Your task to perform on an android device: Open calendar and show me the second week of next month Image 0: 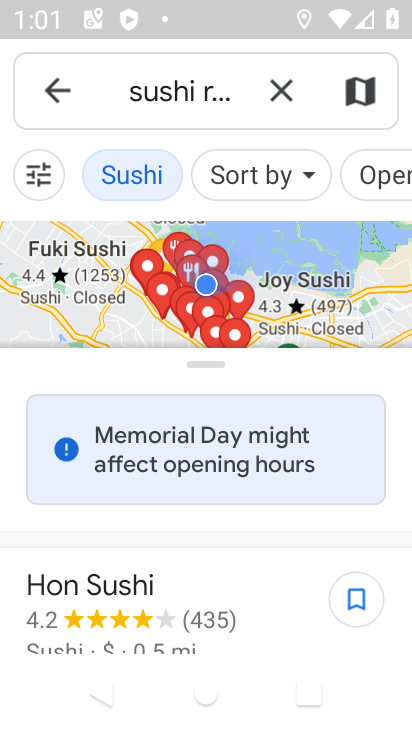
Step 0: press home button
Your task to perform on an android device: Open calendar and show me the second week of next month Image 1: 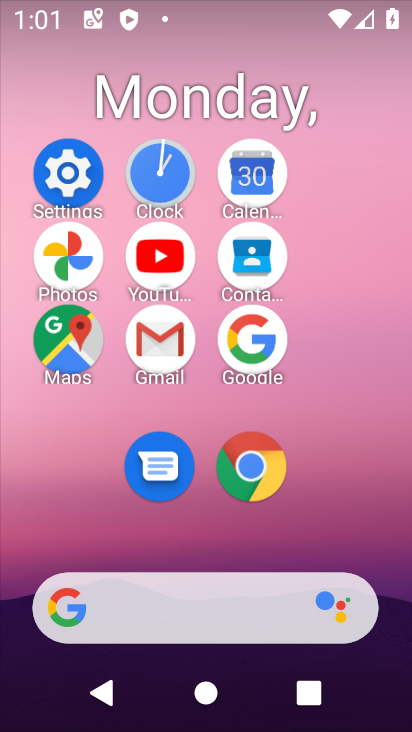
Step 1: click (237, 183)
Your task to perform on an android device: Open calendar and show me the second week of next month Image 2: 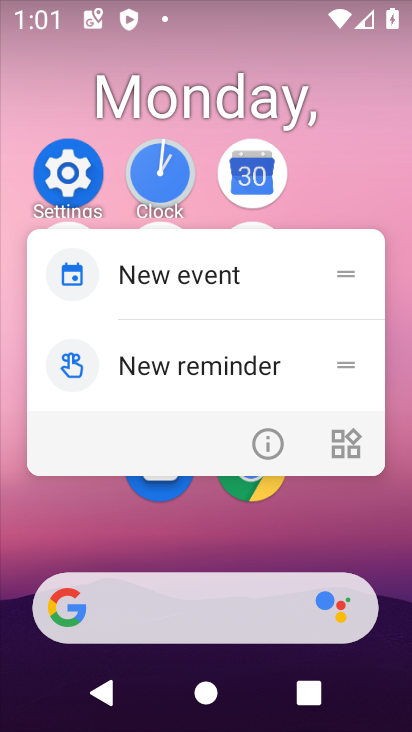
Step 2: click (237, 183)
Your task to perform on an android device: Open calendar and show me the second week of next month Image 3: 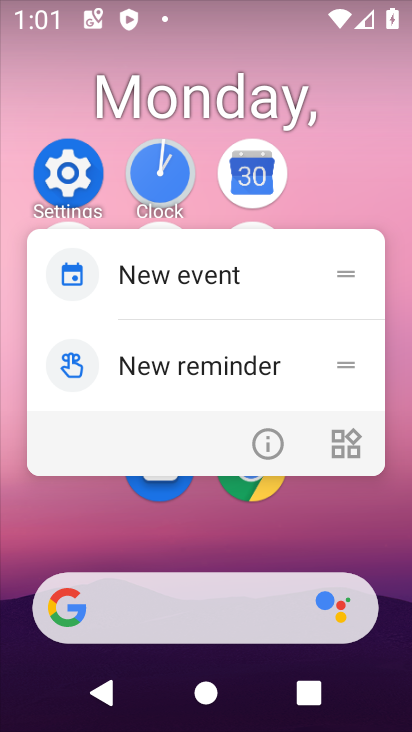
Step 3: click (237, 183)
Your task to perform on an android device: Open calendar and show me the second week of next month Image 4: 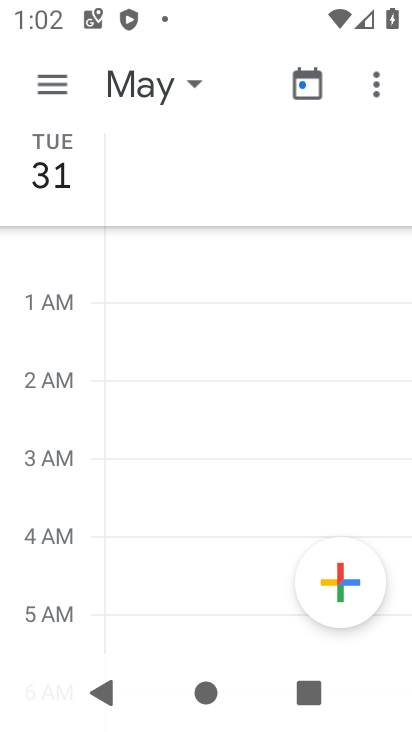
Step 4: click (26, 72)
Your task to perform on an android device: Open calendar and show me the second week of next month Image 5: 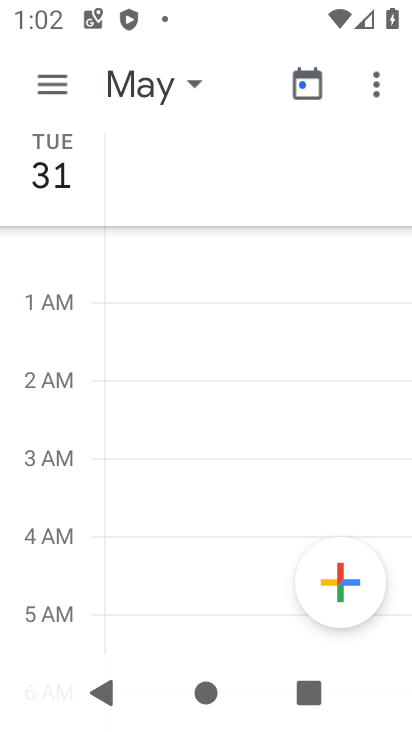
Step 5: click (60, 101)
Your task to perform on an android device: Open calendar and show me the second week of next month Image 6: 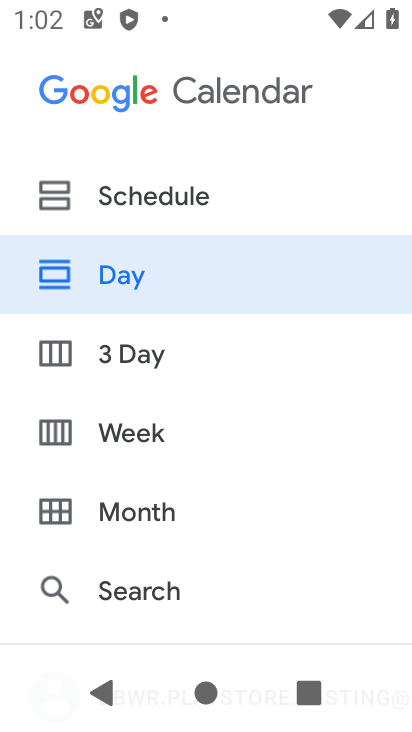
Step 6: click (157, 431)
Your task to perform on an android device: Open calendar and show me the second week of next month Image 7: 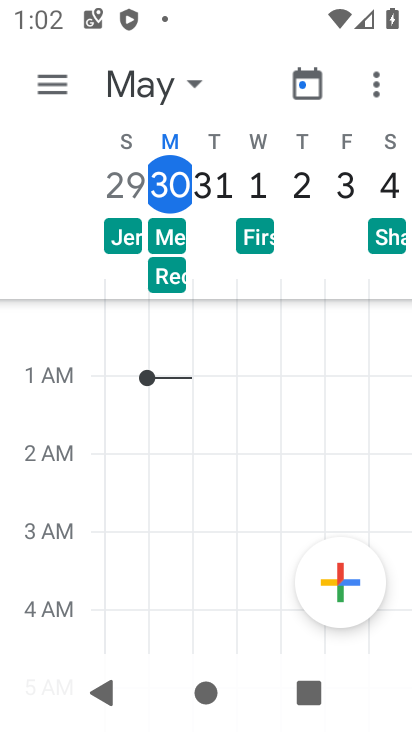
Step 7: task complete